Your task to perform on an android device: Open Google Chrome and click the shortcut for Amazon.com Image 0: 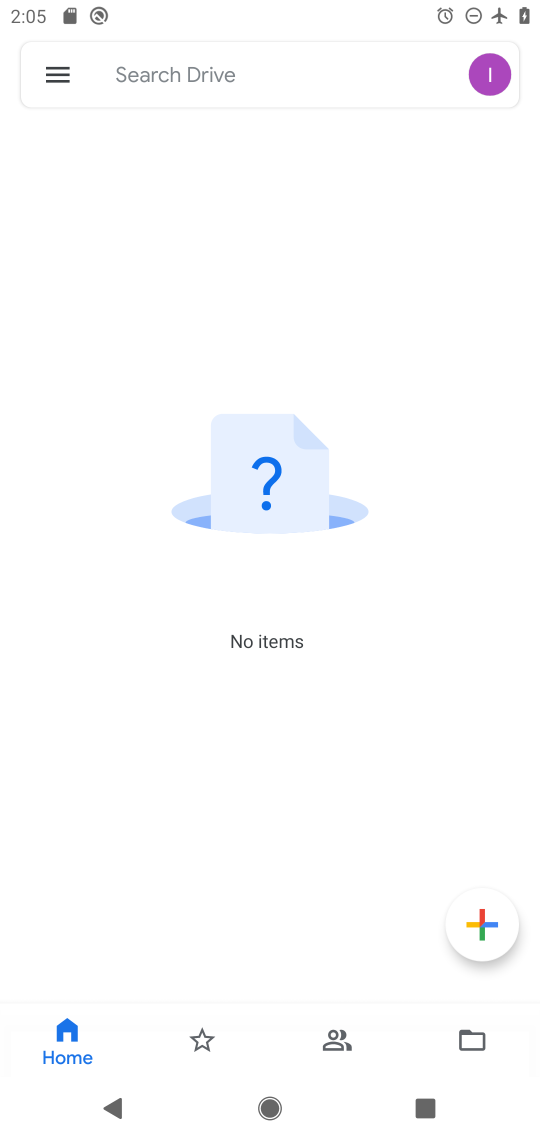
Step 0: press home button
Your task to perform on an android device: Open Google Chrome and click the shortcut for Amazon.com Image 1: 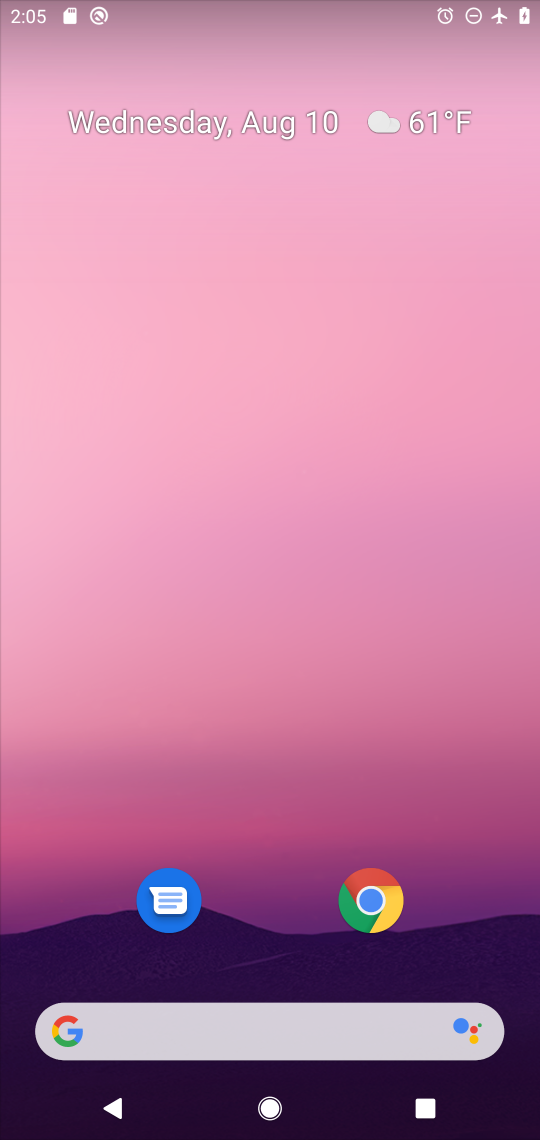
Step 1: drag from (257, 883) to (299, 78)
Your task to perform on an android device: Open Google Chrome and click the shortcut for Amazon.com Image 2: 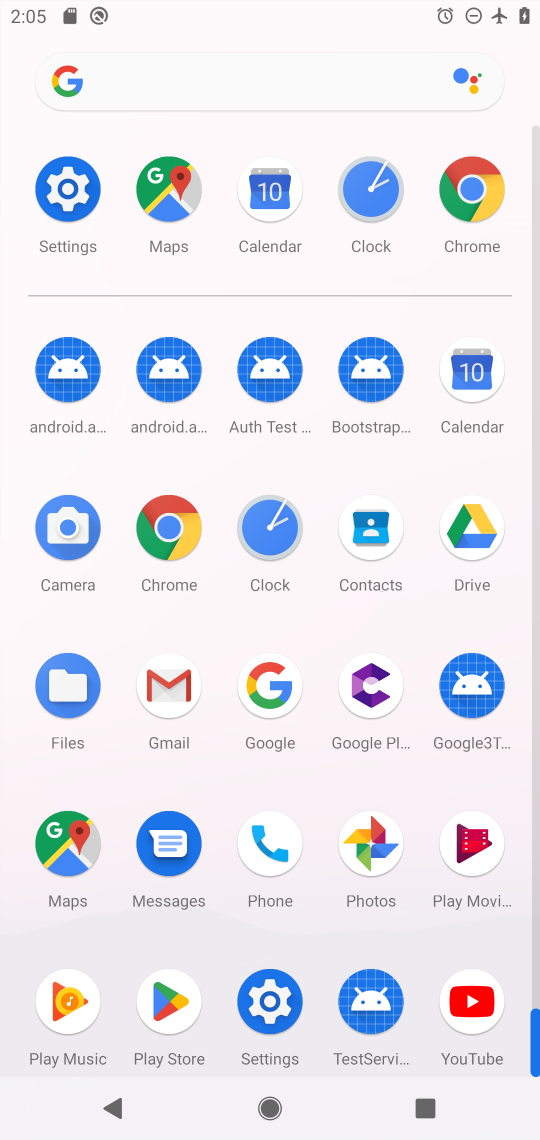
Step 2: click (479, 189)
Your task to perform on an android device: Open Google Chrome and click the shortcut for Amazon.com Image 3: 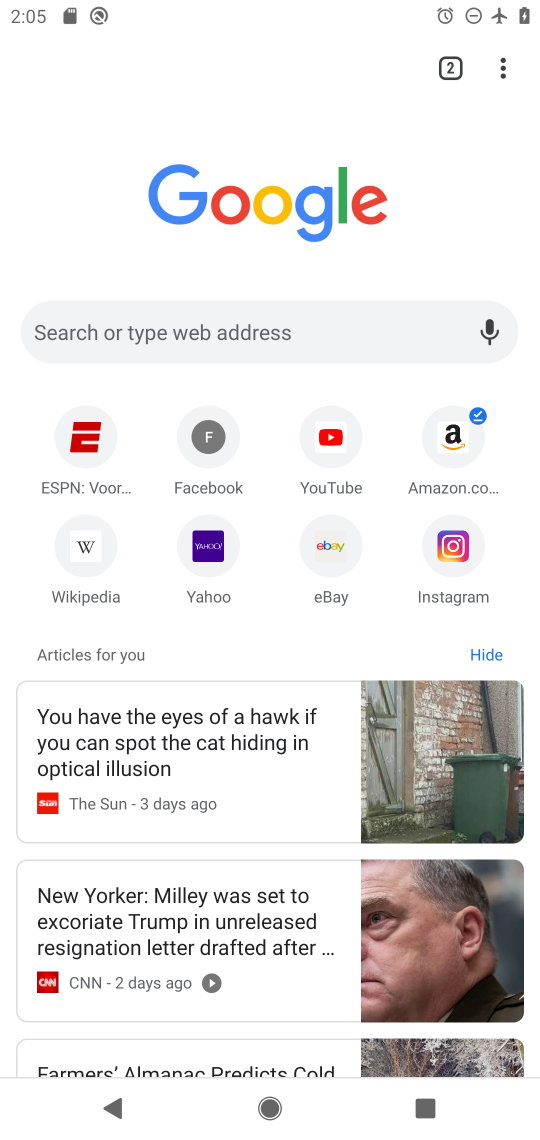
Step 3: click (454, 441)
Your task to perform on an android device: Open Google Chrome and click the shortcut for Amazon.com Image 4: 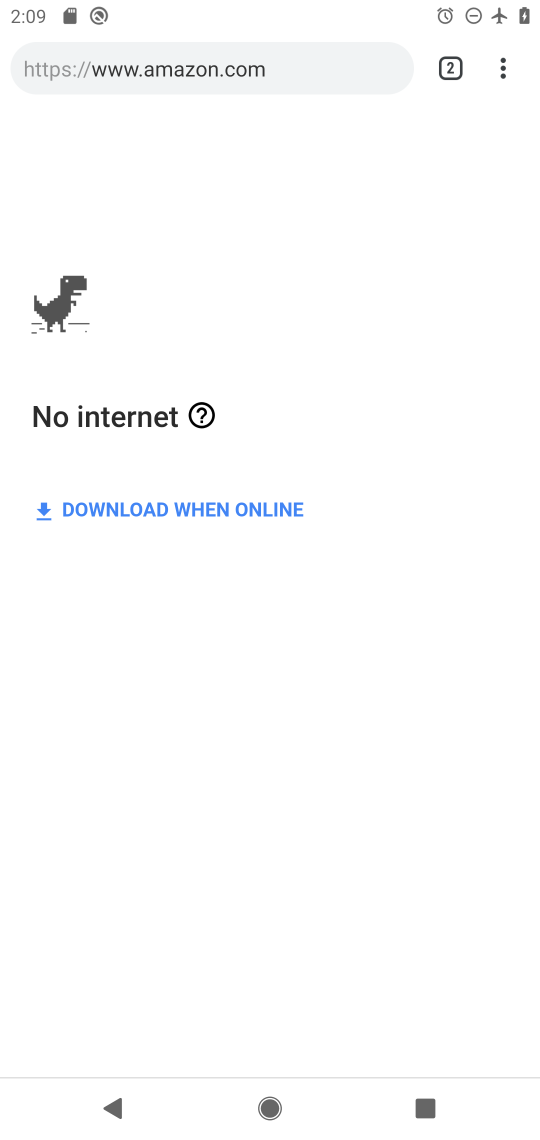
Step 4: task complete